Your task to perform on an android device: What is the recent news? Image 0: 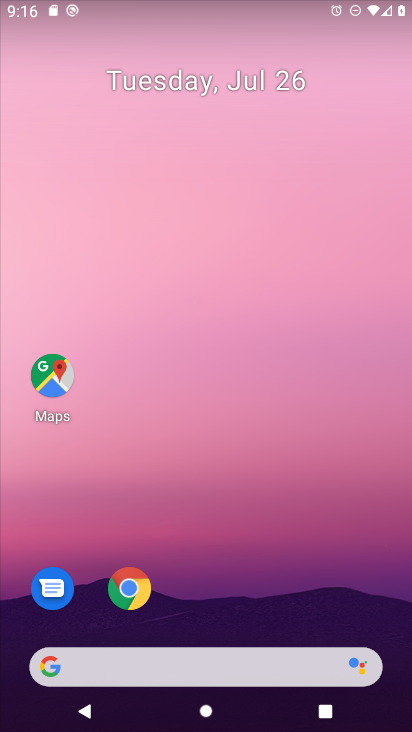
Step 0: drag from (168, 663) to (252, 12)
Your task to perform on an android device: What is the recent news? Image 1: 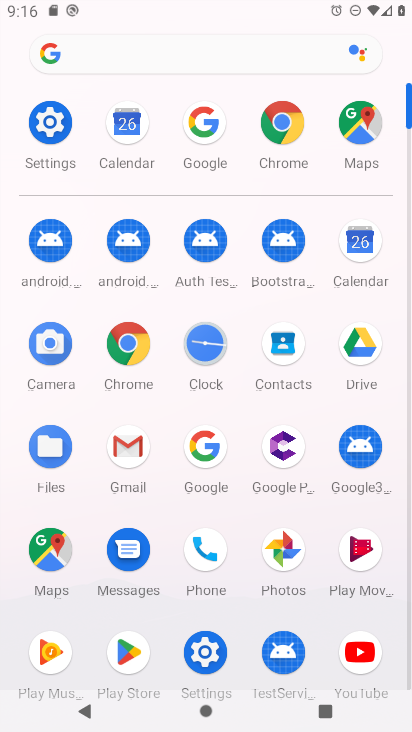
Step 1: click (202, 466)
Your task to perform on an android device: What is the recent news? Image 2: 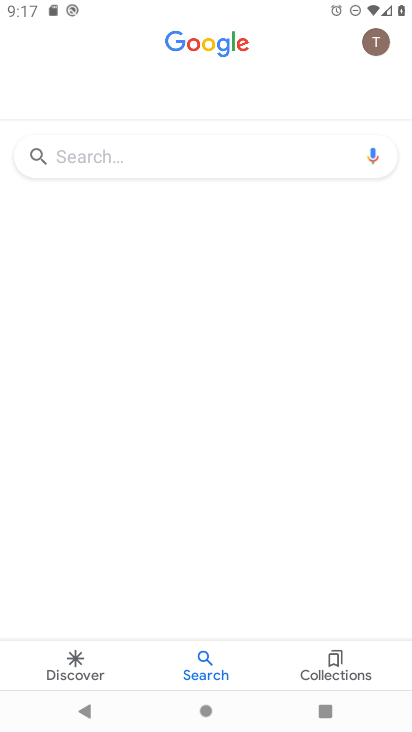
Step 2: click (139, 155)
Your task to perform on an android device: What is the recent news? Image 3: 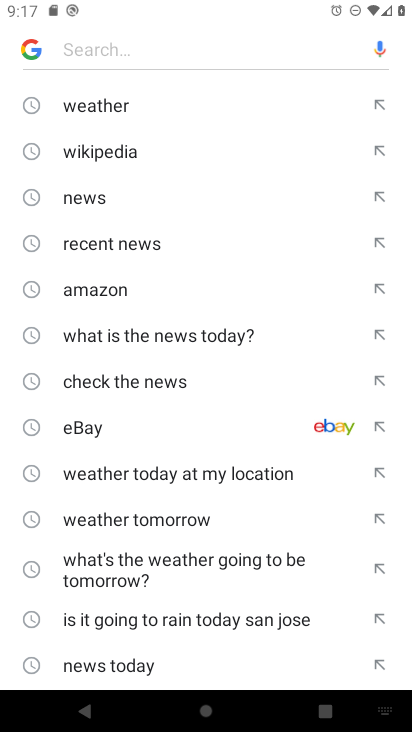
Step 3: click (133, 238)
Your task to perform on an android device: What is the recent news? Image 4: 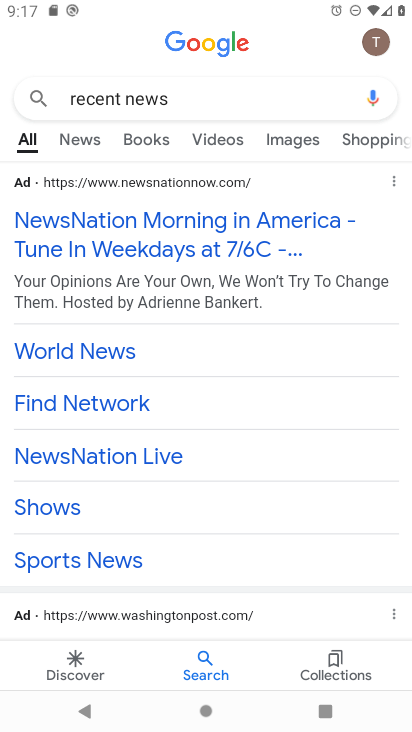
Step 4: click (82, 139)
Your task to perform on an android device: What is the recent news? Image 5: 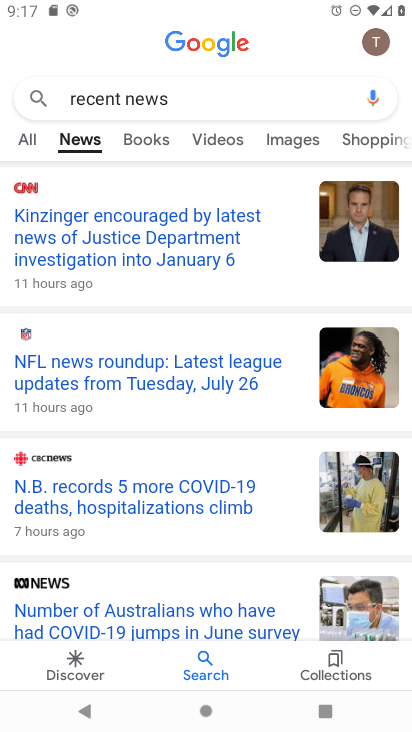
Step 5: task complete